Your task to perform on an android device: toggle notifications settings in the gmail app Image 0: 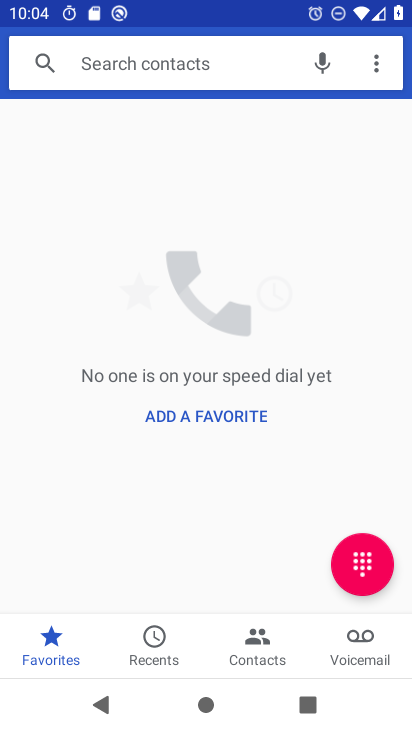
Step 0: press home button
Your task to perform on an android device: toggle notifications settings in the gmail app Image 1: 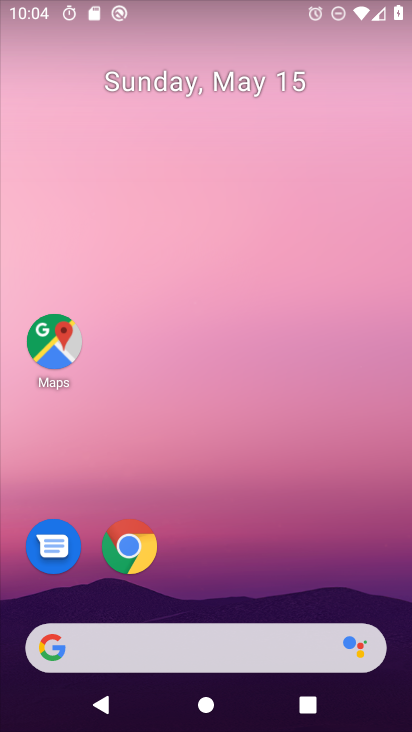
Step 1: drag from (209, 560) to (226, 96)
Your task to perform on an android device: toggle notifications settings in the gmail app Image 2: 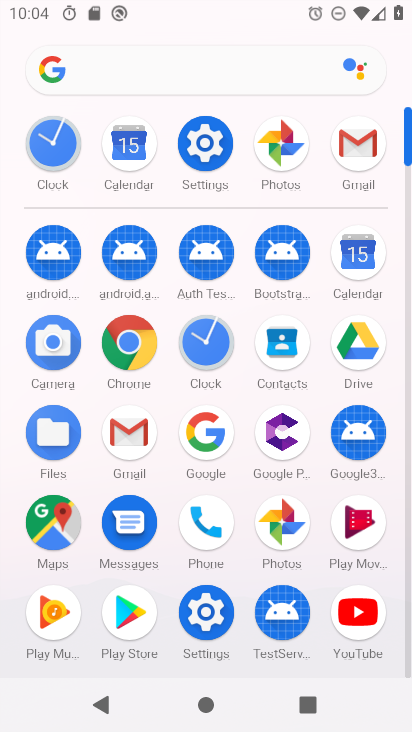
Step 2: click (357, 139)
Your task to perform on an android device: toggle notifications settings in the gmail app Image 3: 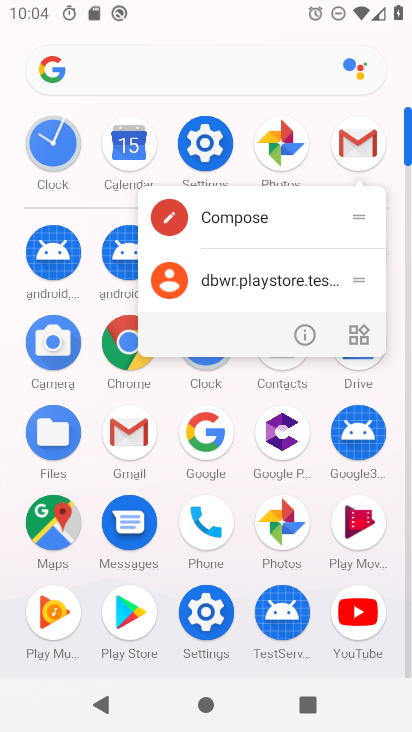
Step 3: click (357, 138)
Your task to perform on an android device: toggle notifications settings in the gmail app Image 4: 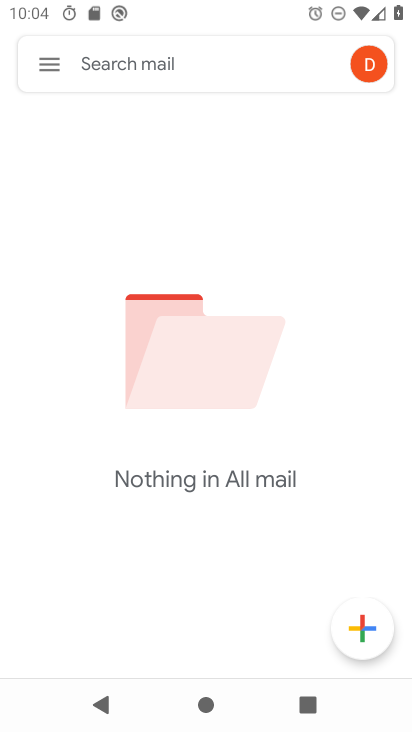
Step 4: click (47, 58)
Your task to perform on an android device: toggle notifications settings in the gmail app Image 5: 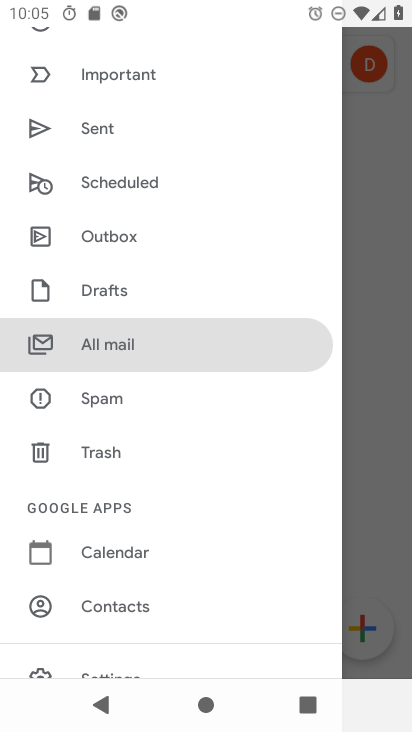
Step 5: drag from (199, 465) to (199, 256)
Your task to perform on an android device: toggle notifications settings in the gmail app Image 6: 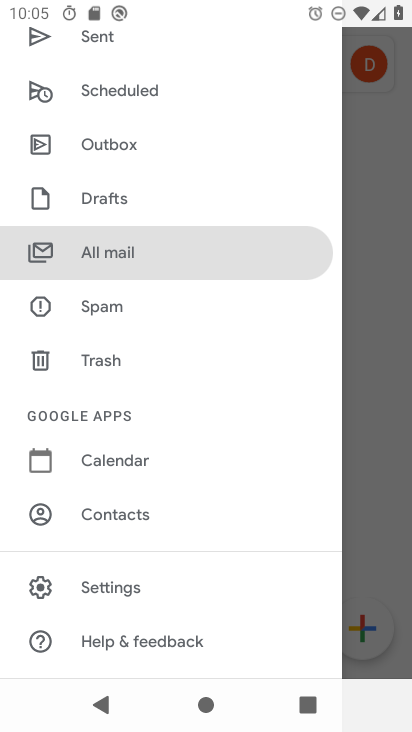
Step 6: click (115, 585)
Your task to perform on an android device: toggle notifications settings in the gmail app Image 7: 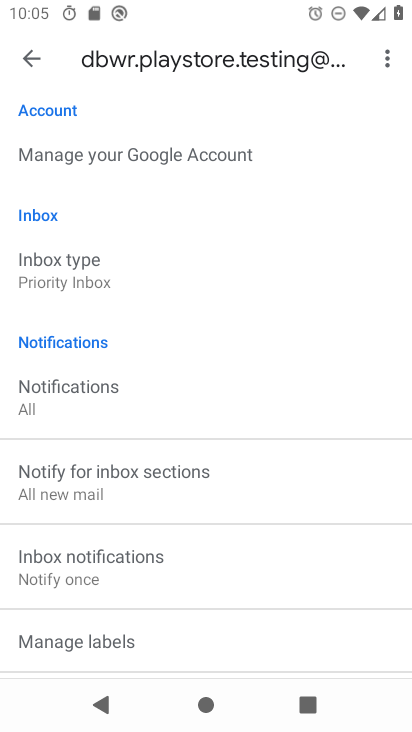
Step 7: drag from (219, 243) to (219, 456)
Your task to perform on an android device: toggle notifications settings in the gmail app Image 8: 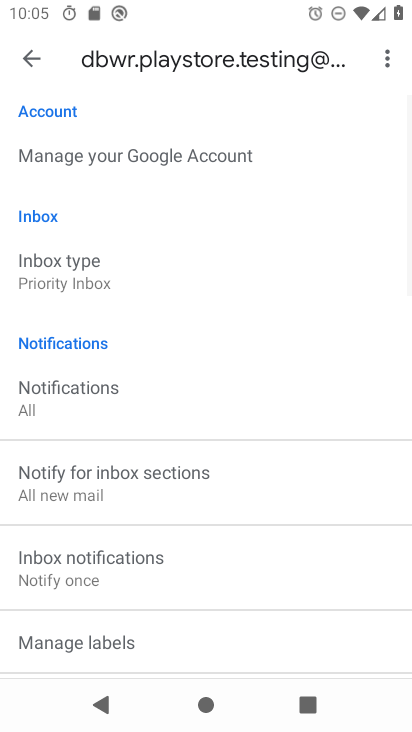
Step 8: drag from (217, 538) to (207, 183)
Your task to perform on an android device: toggle notifications settings in the gmail app Image 9: 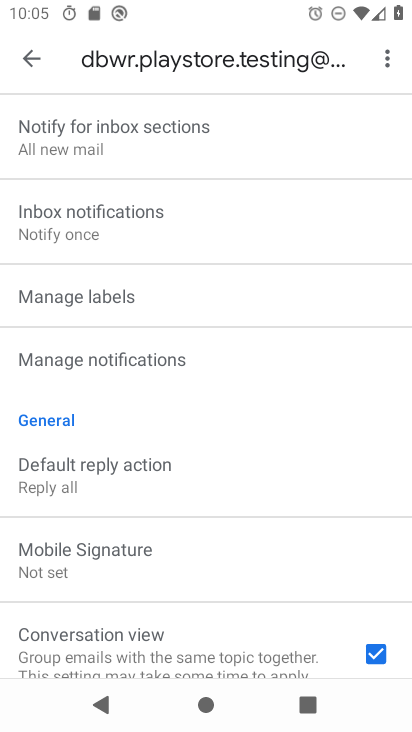
Step 9: click (175, 363)
Your task to perform on an android device: toggle notifications settings in the gmail app Image 10: 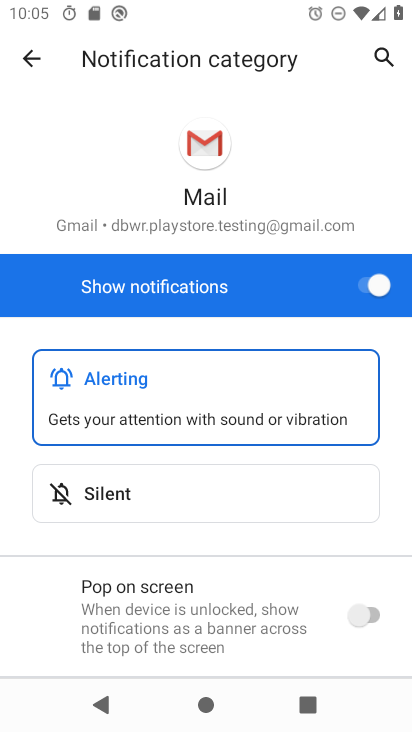
Step 10: click (365, 285)
Your task to perform on an android device: toggle notifications settings in the gmail app Image 11: 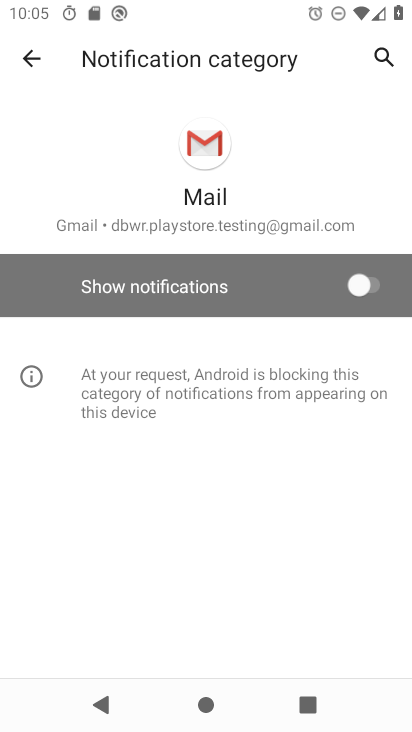
Step 11: task complete